Your task to perform on an android device: toggle wifi Image 0: 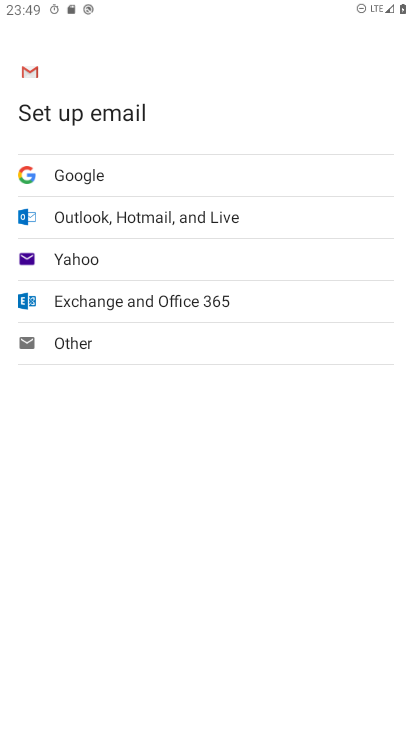
Step 0: press home button
Your task to perform on an android device: toggle wifi Image 1: 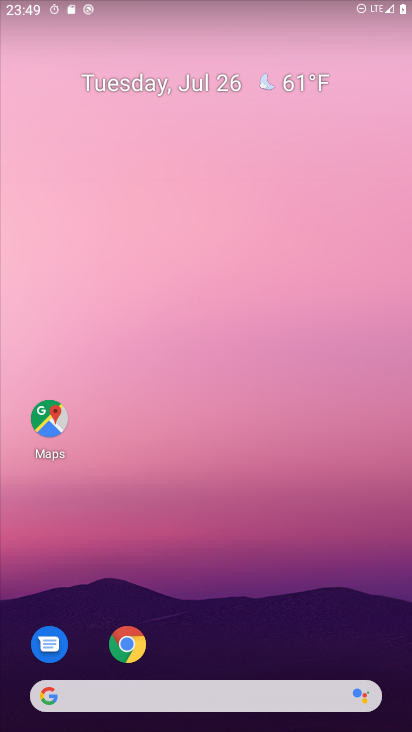
Step 1: drag from (218, 657) to (226, 53)
Your task to perform on an android device: toggle wifi Image 2: 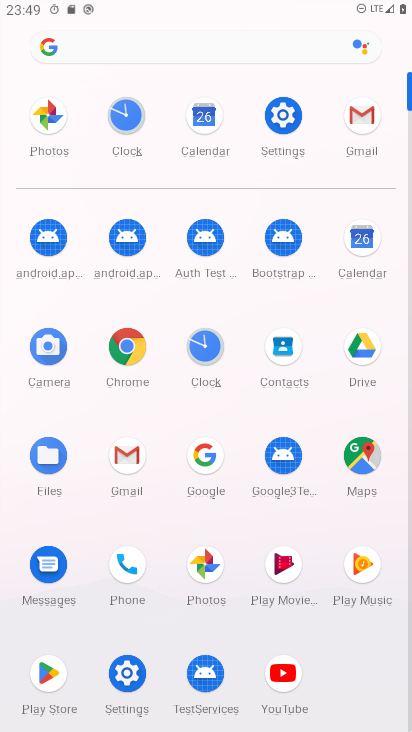
Step 2: click (278, 112)
Your task to perform on an android device: toggle wifi Image 3: 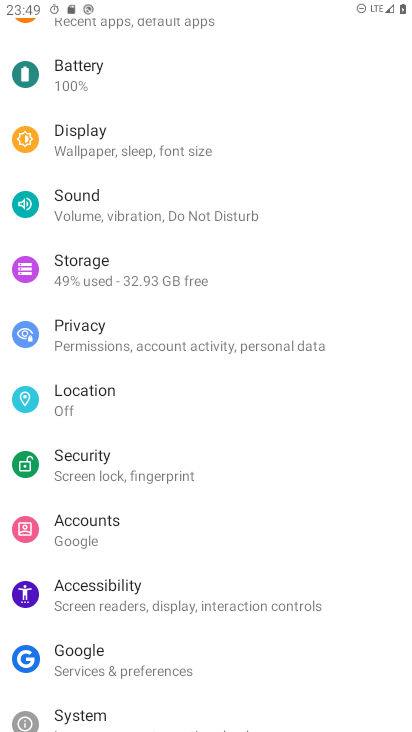
Step 3: drag from (166, 122) to (153, 547)
Your task to perform on an android device: toggle wifi Image 4: 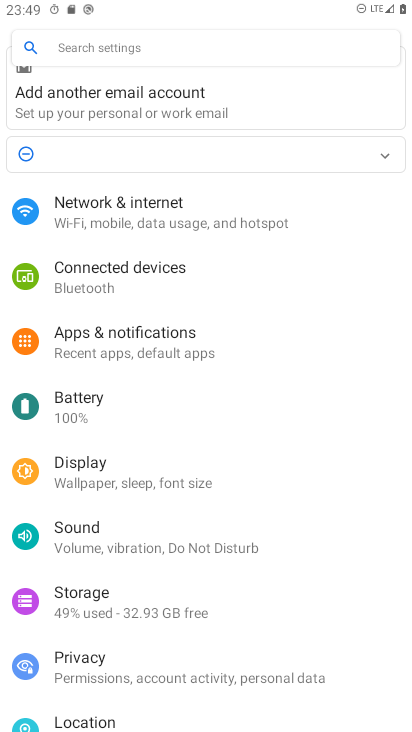
Step 4: click (98, 220)
Your task to perform on an android device: toggle wifi Image 5: 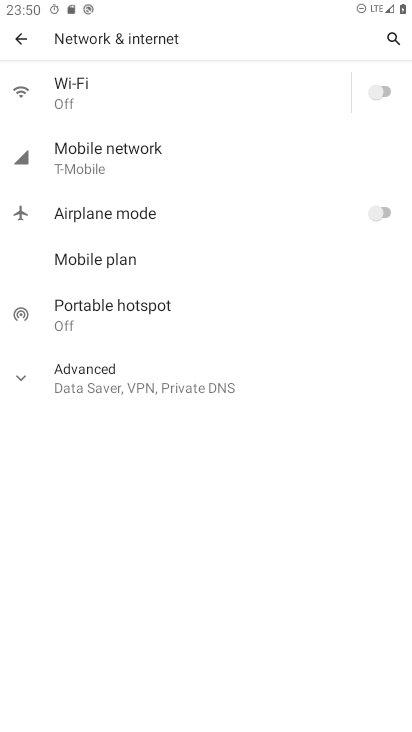
Step 5: click (390, 85)
Your task to perform on an android device: toggle wifi Image 6: 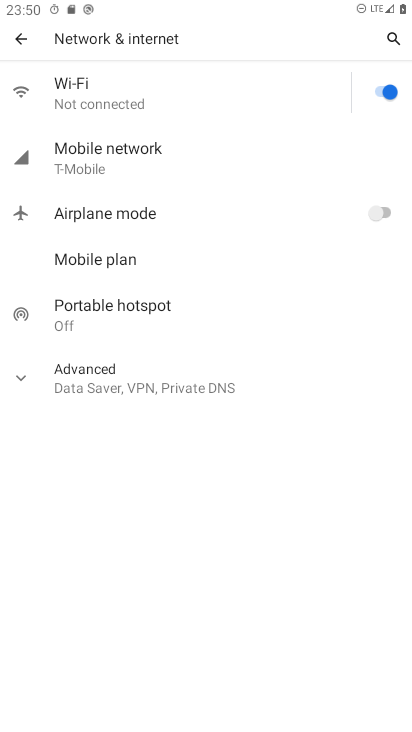
Step 6: task complete